Your task to perform on an android device: Go to calendar. Show me events next week Image 0: 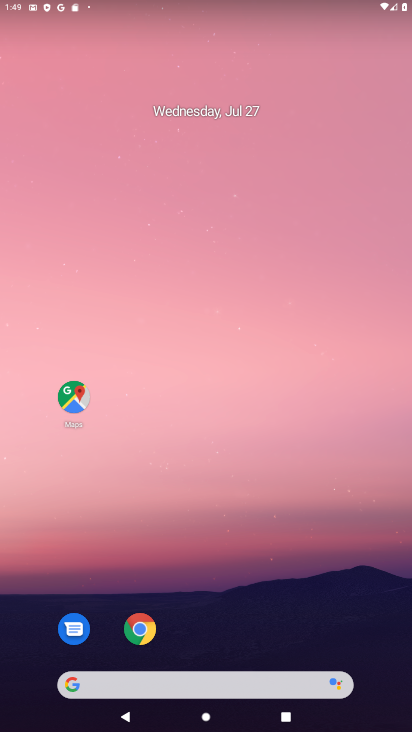
Step 0: drag from (248, 649) to (266, 183)
Your task to perform on an android device: Go to calendar. Show me events next week Image 1: 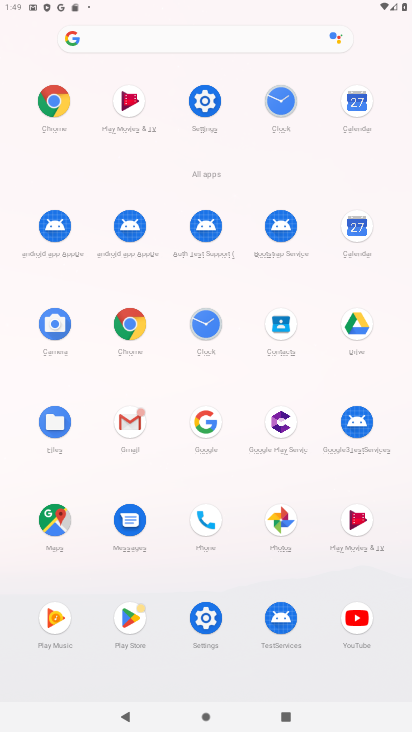
Step 1: click (355, 115)
Your task to perform on an android device: Go to calendar. Show me events next week Image 2: 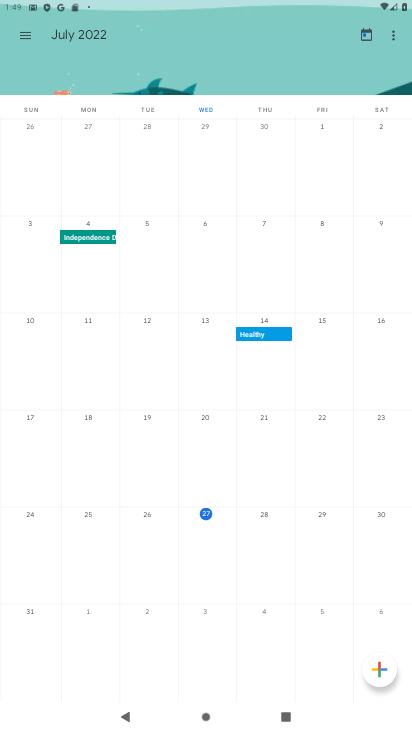
Step 2: task complete